Your task to perform on an android device: change text size in settings app Image 0: 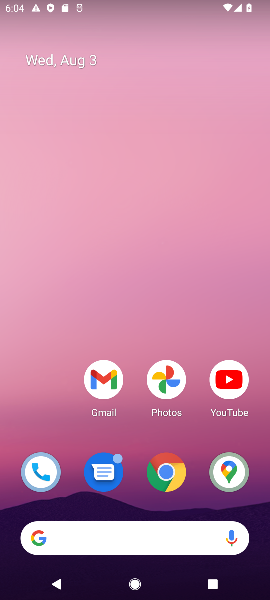
Step 0: drag from (136, 371) to (93, 58)
Your task to perform on an android device: change text size in settings app Image 1: 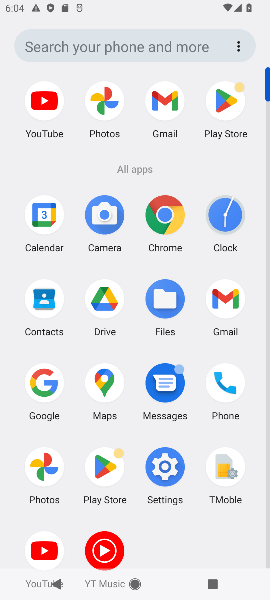
Step 1: click (165, 472)
Your task to perform on an android device: change text size in settings app Image 2: 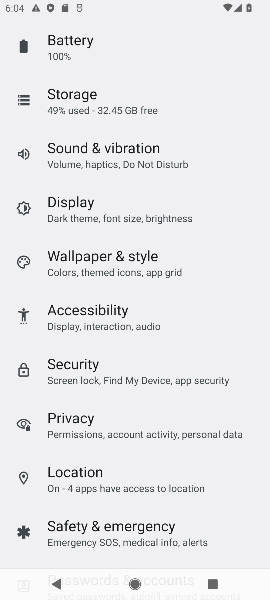
Step 2: click (146, 210)
Your task to perform on an android device: change text size in settings app Image 3: 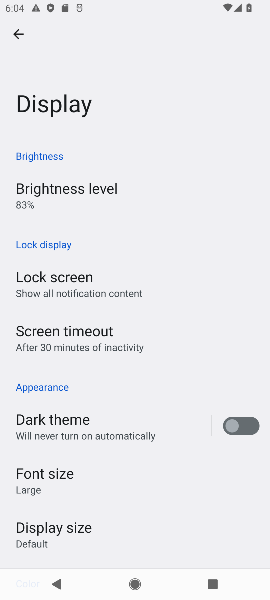
Step 3: click (145, 470)
Your task to perform on an android device: change text size in settings app Image 4: 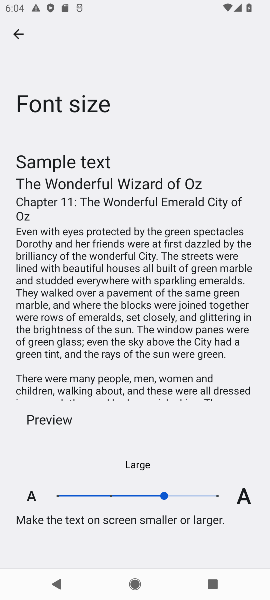
Step 4: click (141, 490)
Your task to perform on an android device: change text size in settings app Image 5: 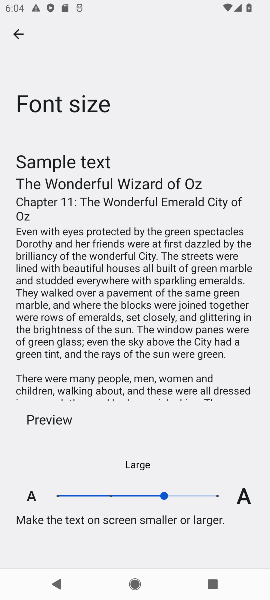
Step 5: click (200, 498)
Your task to perform on an android device: change text size in settings app Image 6: 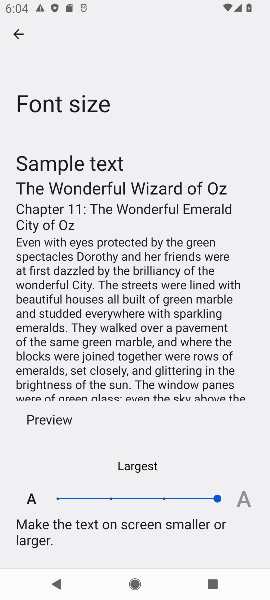
Step 6: task complete